Your task to perform on an android device: make emails show in primary in the gmail app Image 0: 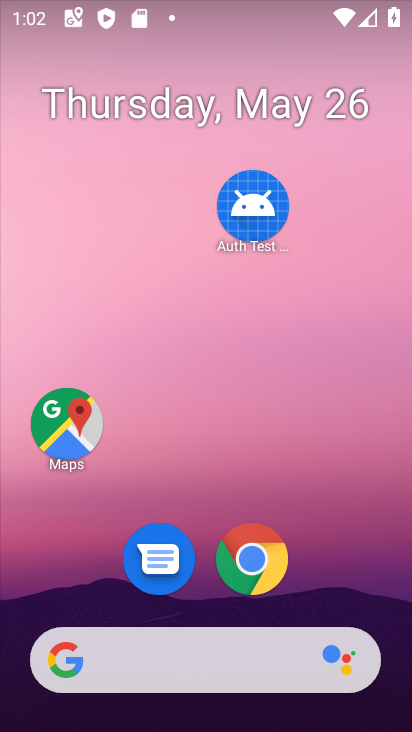
Step 0: drag from (364, 572) to (331, 127)
Your task to perform on an android device: make emails show in primary in the gmail app Image 1: 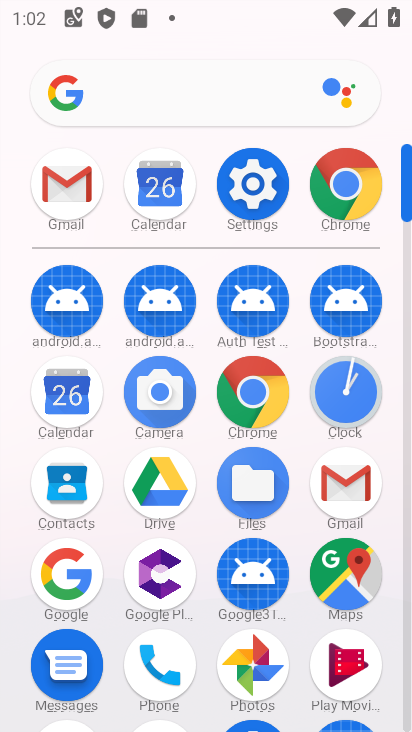
Step 1: click (345, 495)
Your task to perform on an android device: make emails show in primary in the gmail app Image 2: 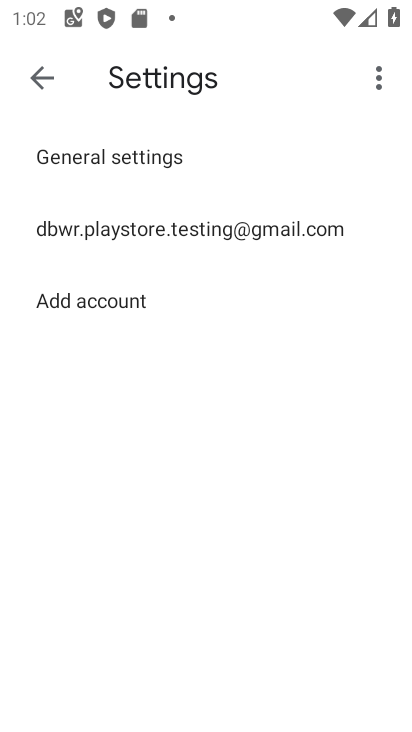
Step 2: click (116, 223)
Your task to perform on an android device: make emails show in primary in the gmail app Image 3: 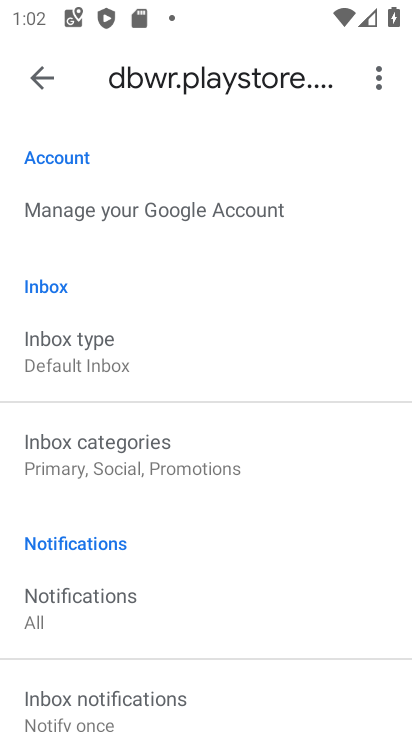
Step 3: click (122, 339)
Your task to perform on an android device: make emails show in primary in the gmail app Image 4: 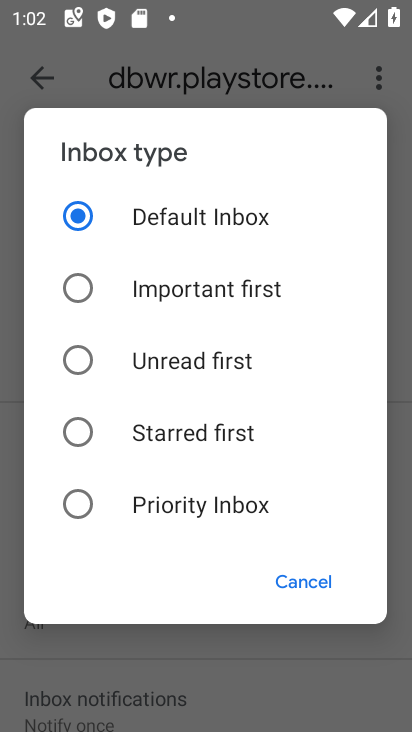
Step 4: click (287, 581)
Your task to perform on an android device: make emails show in primary in the gmail app Image 5: 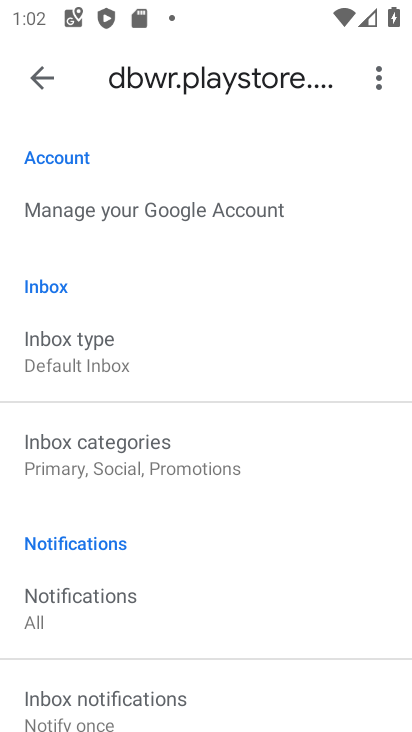
Step 5: click (126, 434)
Your task to perform on an android device: make emails show in primary in the gmail app Image 6: 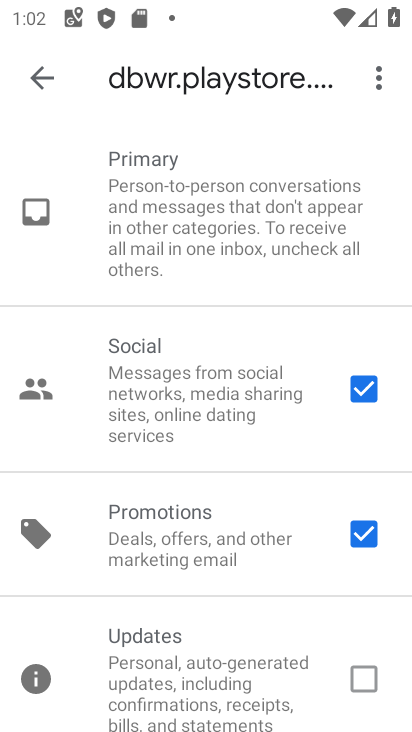
Step 6: click (359, 525)
Your task to perform on an android device: make emails show in primary in the gmail app Image 7: 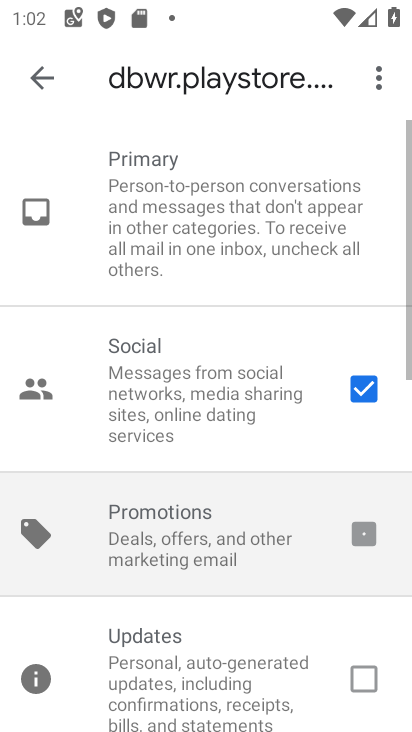
Step 7: click (358, 394)
Your task to perform on an android device: make emails show in primary in the gmail app Image 8: 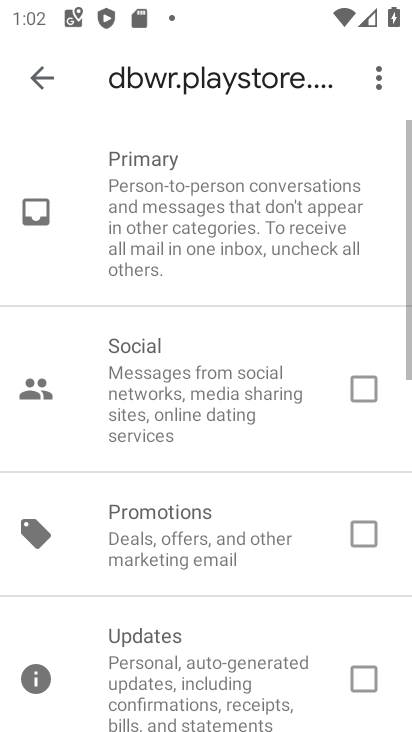
Step 8: click (51, 83)
Your task to perform on an android device: make emails show in primary in the gmail app Image 9: 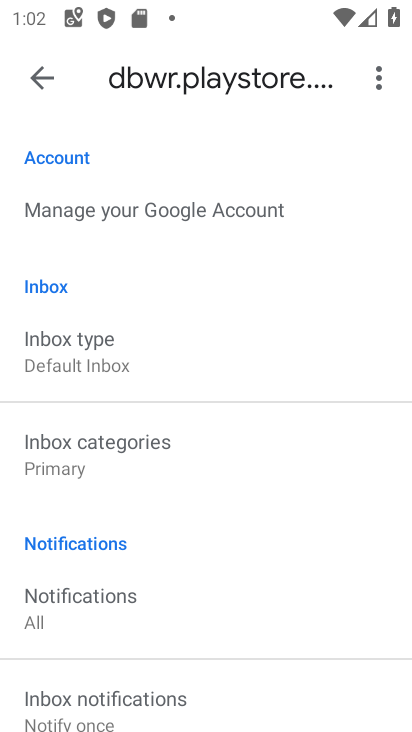
Step 9: task complete